Your task to perform on an android device: Go to notification settings Image 0: 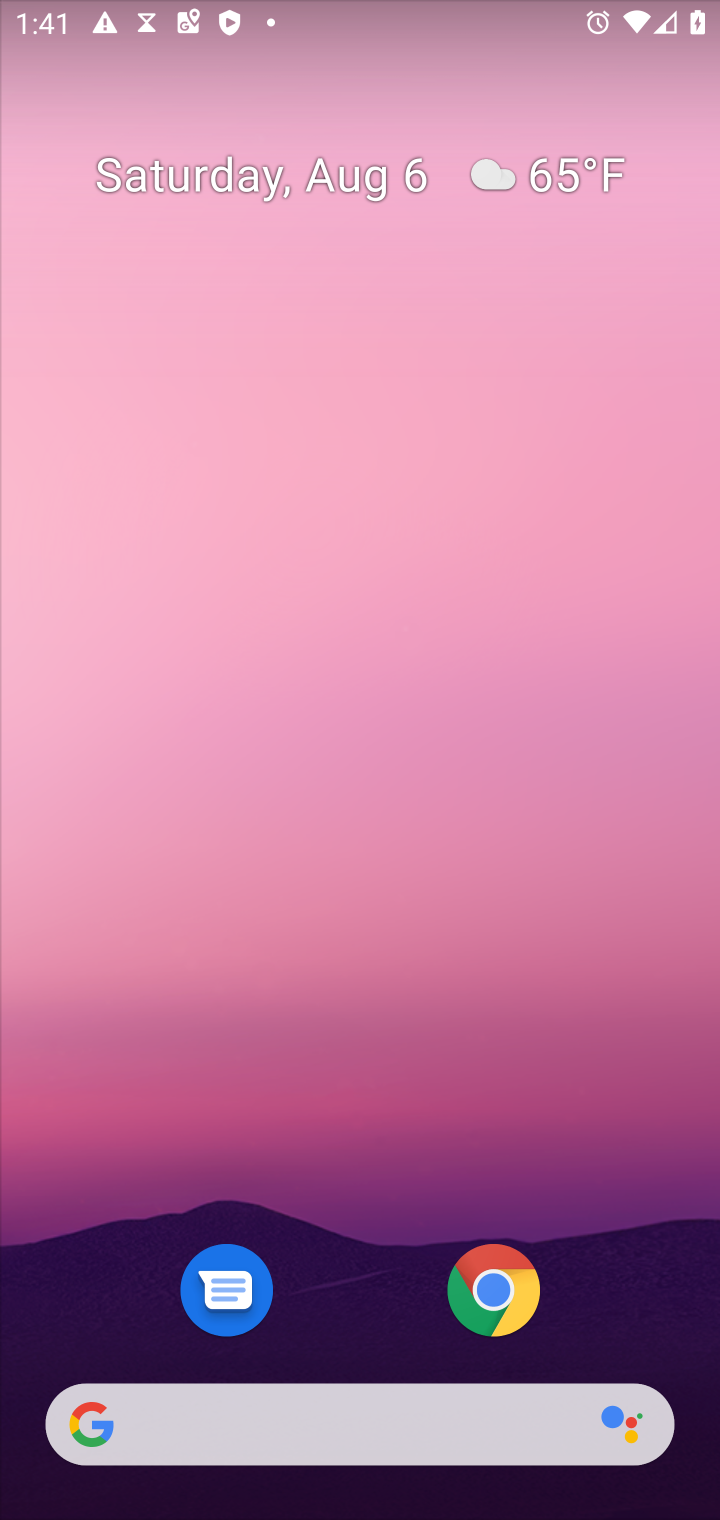
Step 0: press home button
Your task to perform on an android device: Go to notification settings Image 1: 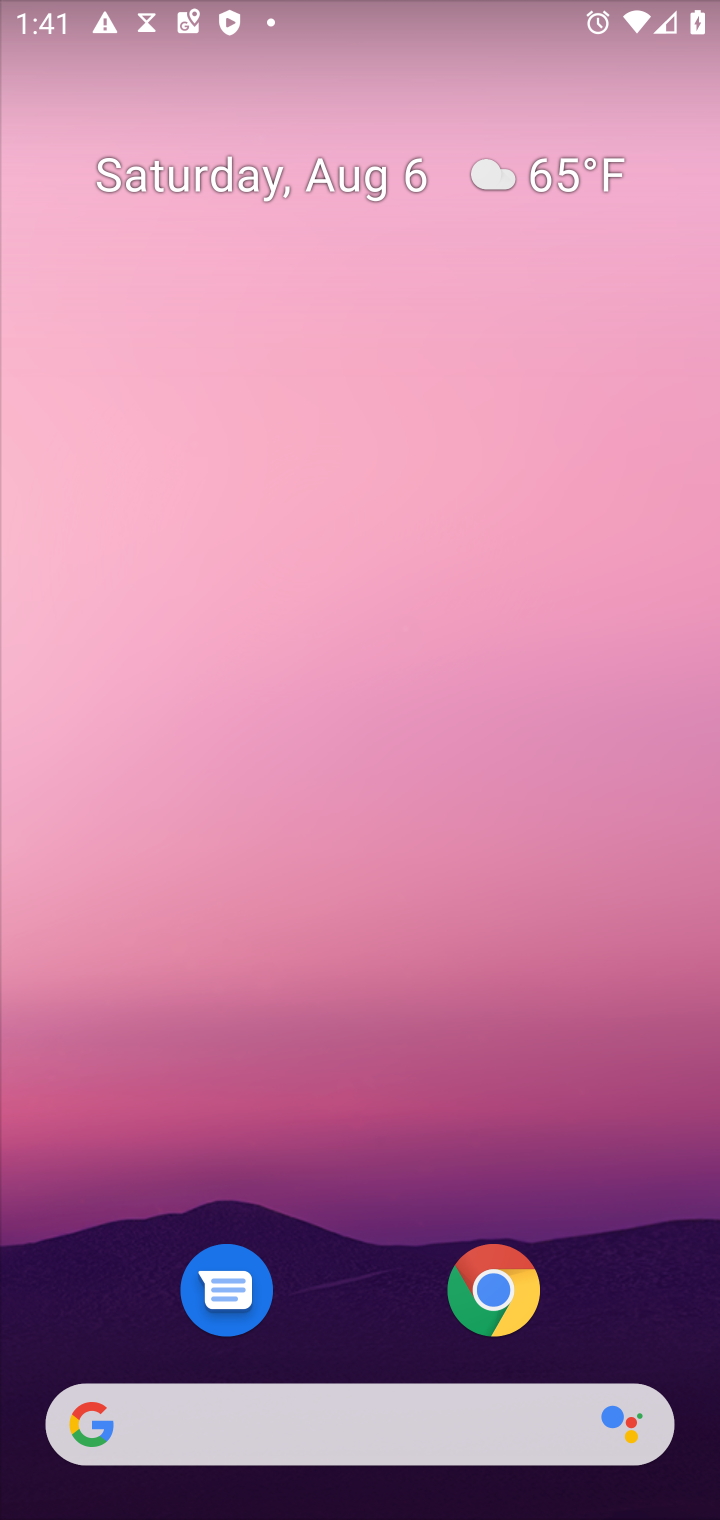
Step 1: drag from (435, 489) to (436, 410)
Your task to perform on an android device: Go to notification settings Image 2: 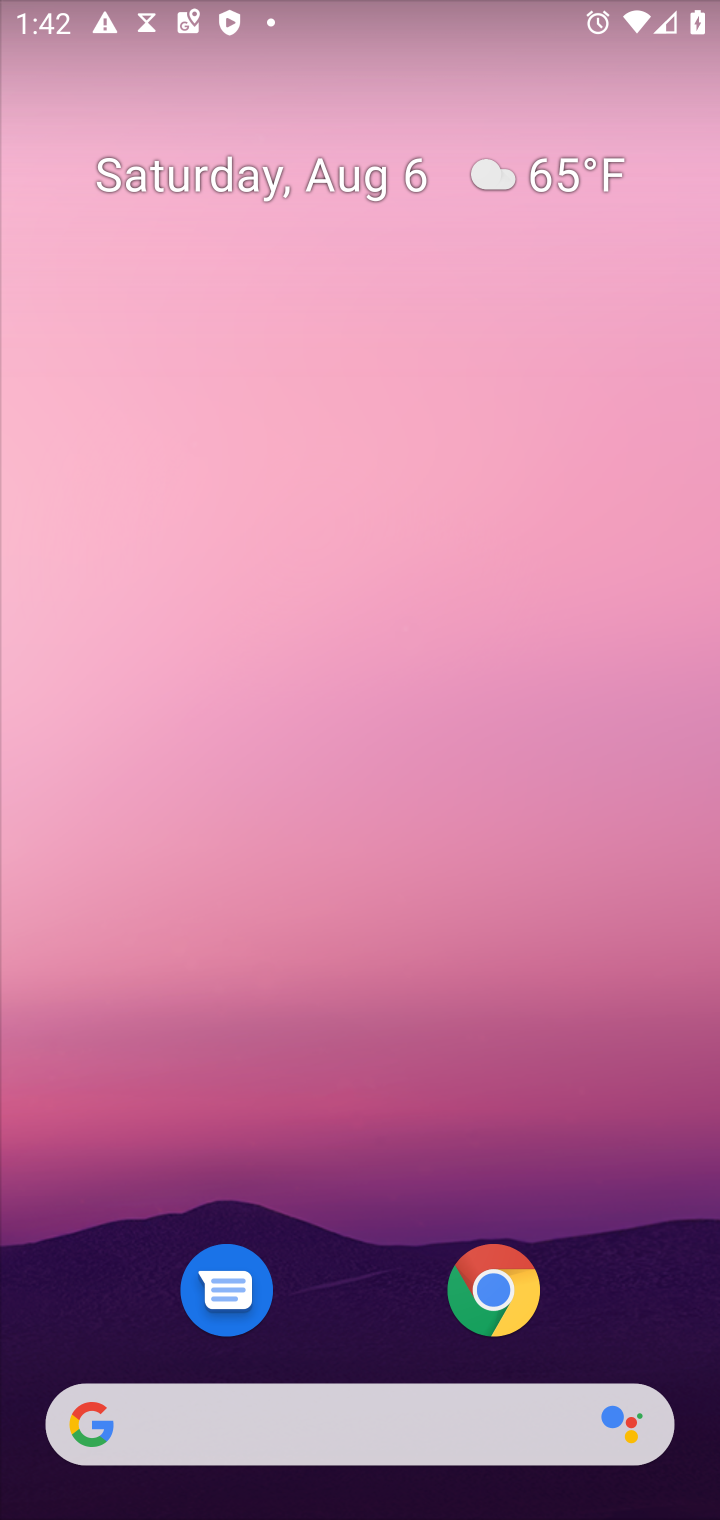
Step 2: drag from (351, 1294) to (319, 402)
Your task to perform on an android device: Go to notification settings Image 3: 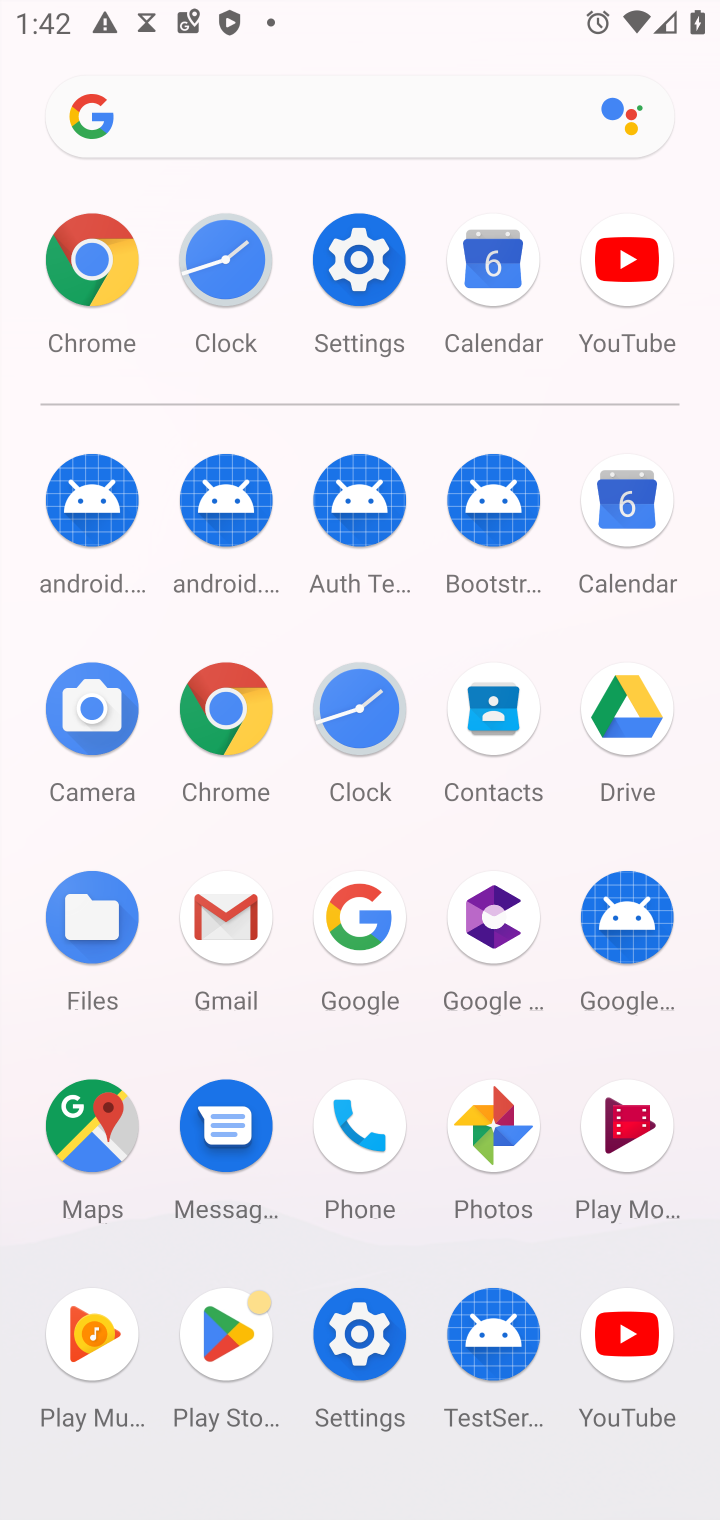
Step 3: click (361, 1334)
Your task to perform on an android device: Go to notification settings Image 4: 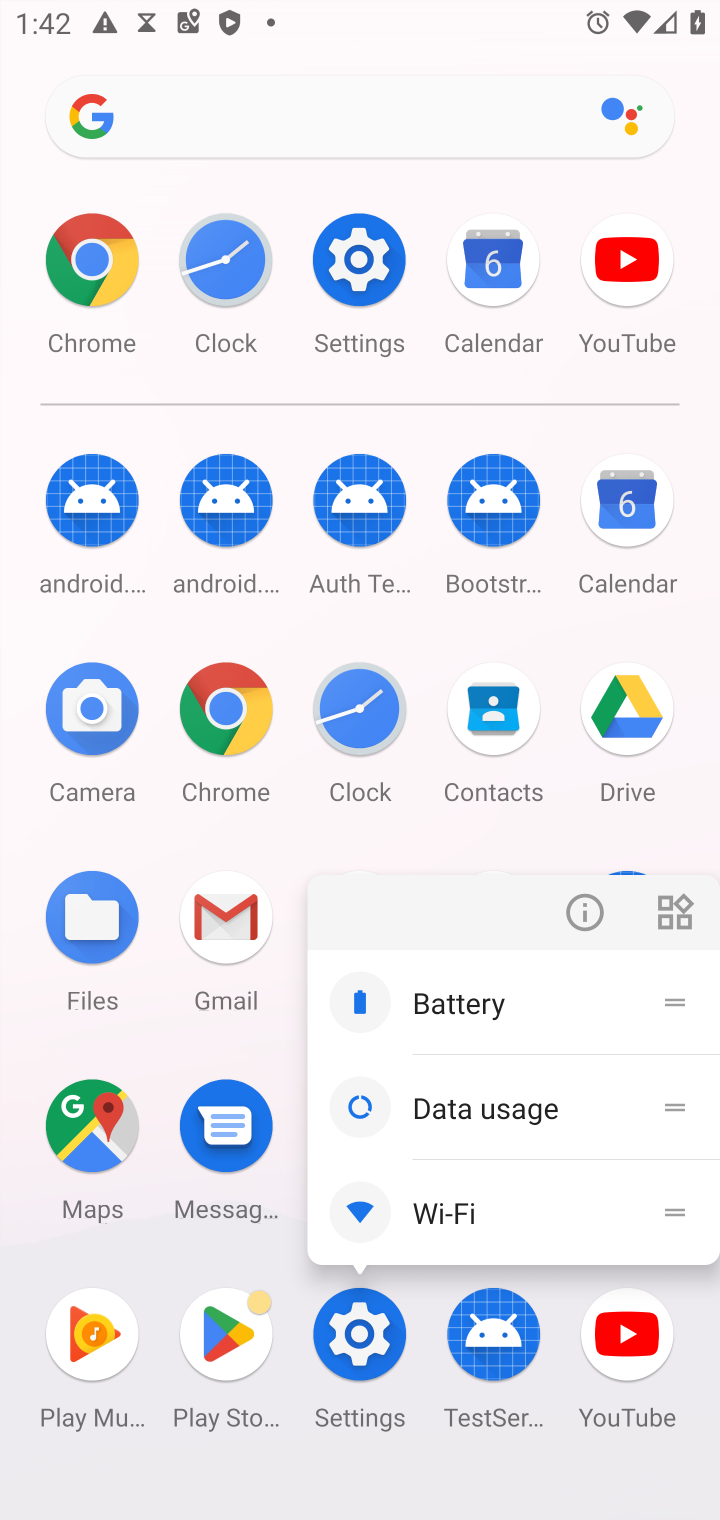
Step 4: click (351, 1323)
Your task to perform on an android device: Go to notification settings Image 5: 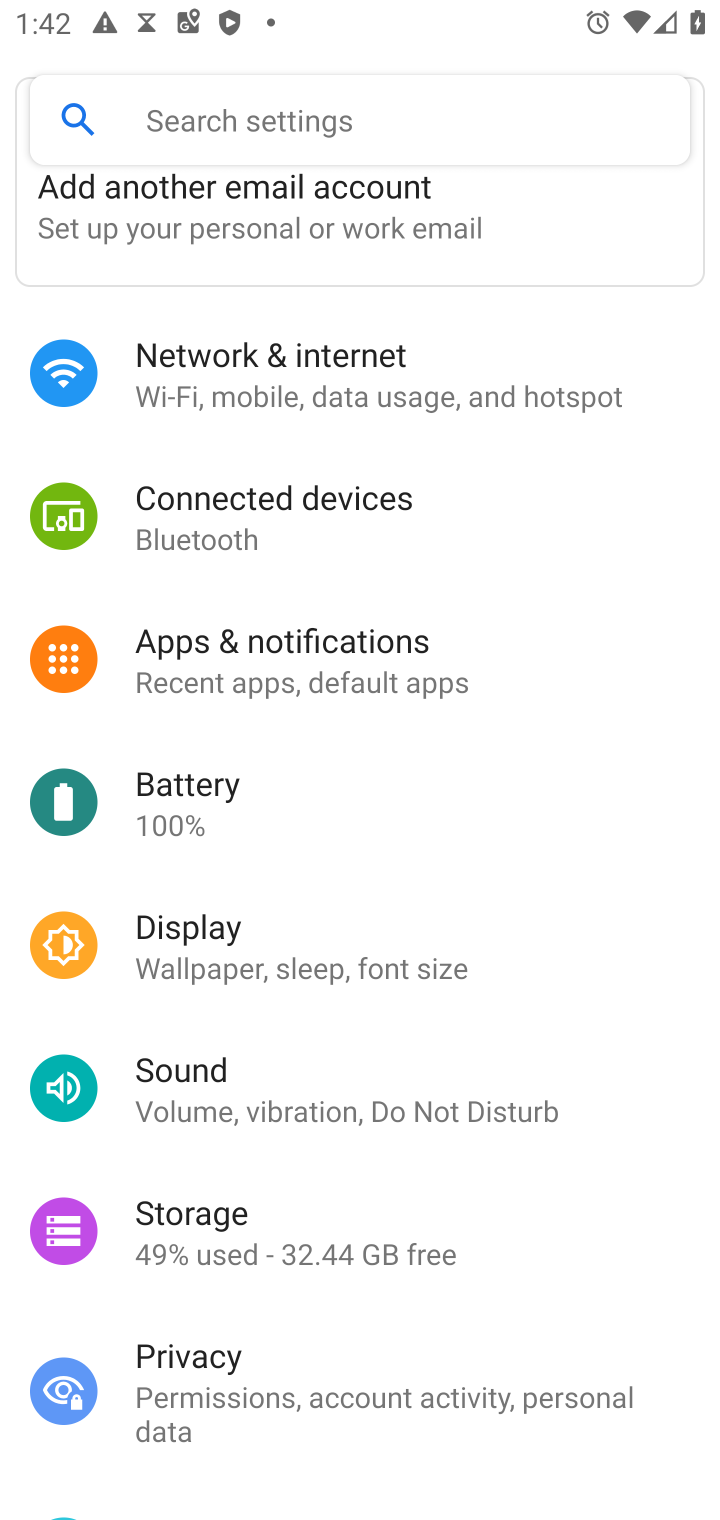
Step 5: click (306, 665)
Your task to perform on an android device: Go to notification settings Image 6: 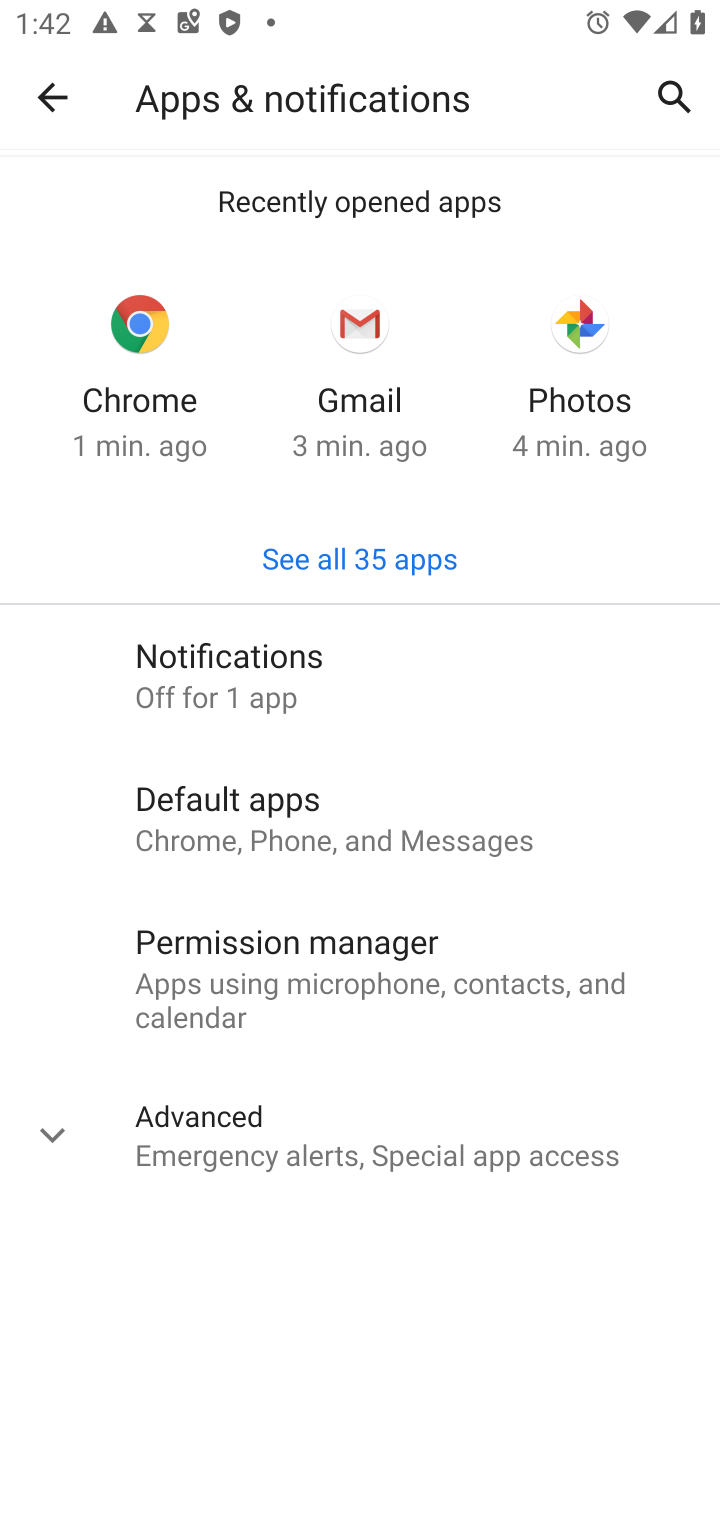
Step 6: click (329, 672)
Your task to perform on an android device: Go to notification settings Image 7: 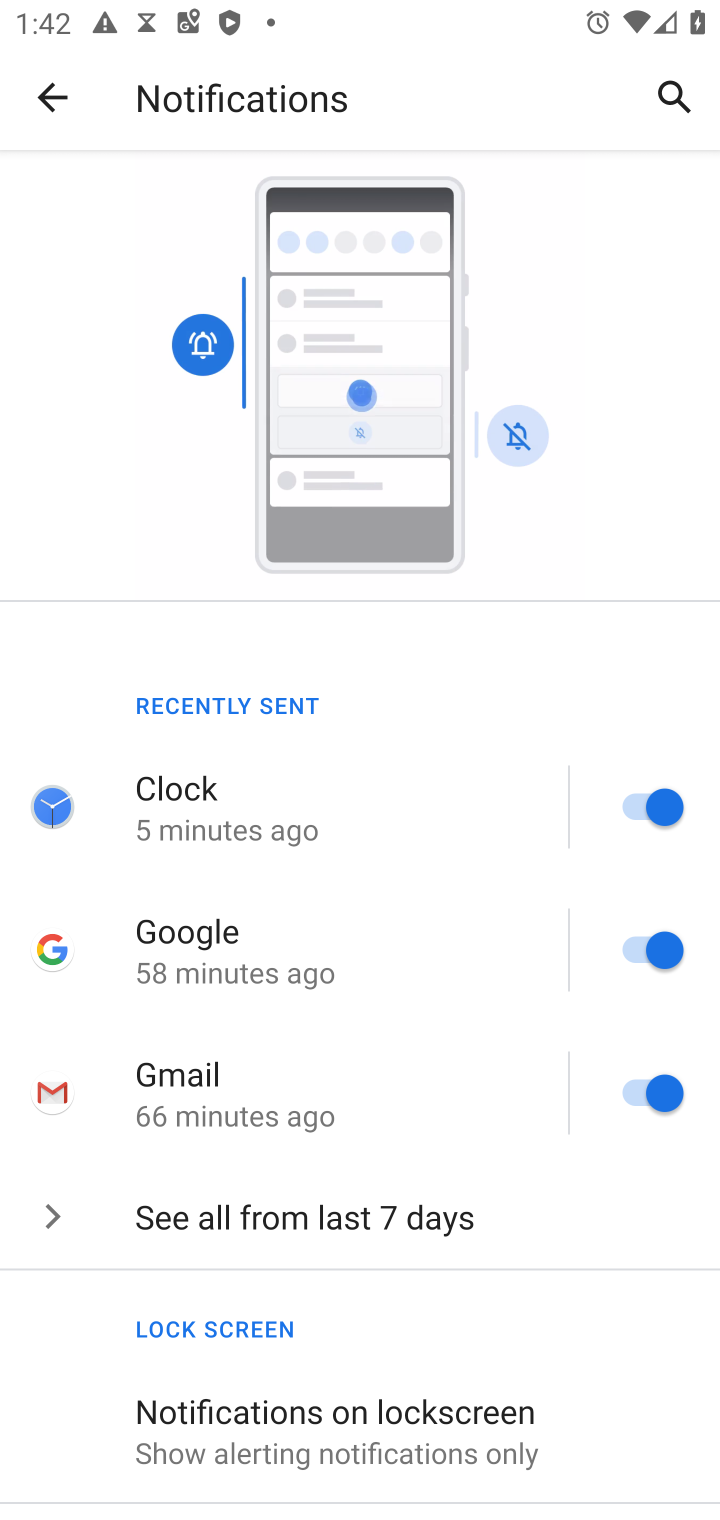
Step 7: drag from (364, 1295) to (422, 416)
Your task to perform on an android device: Go to notification settings Image 8: 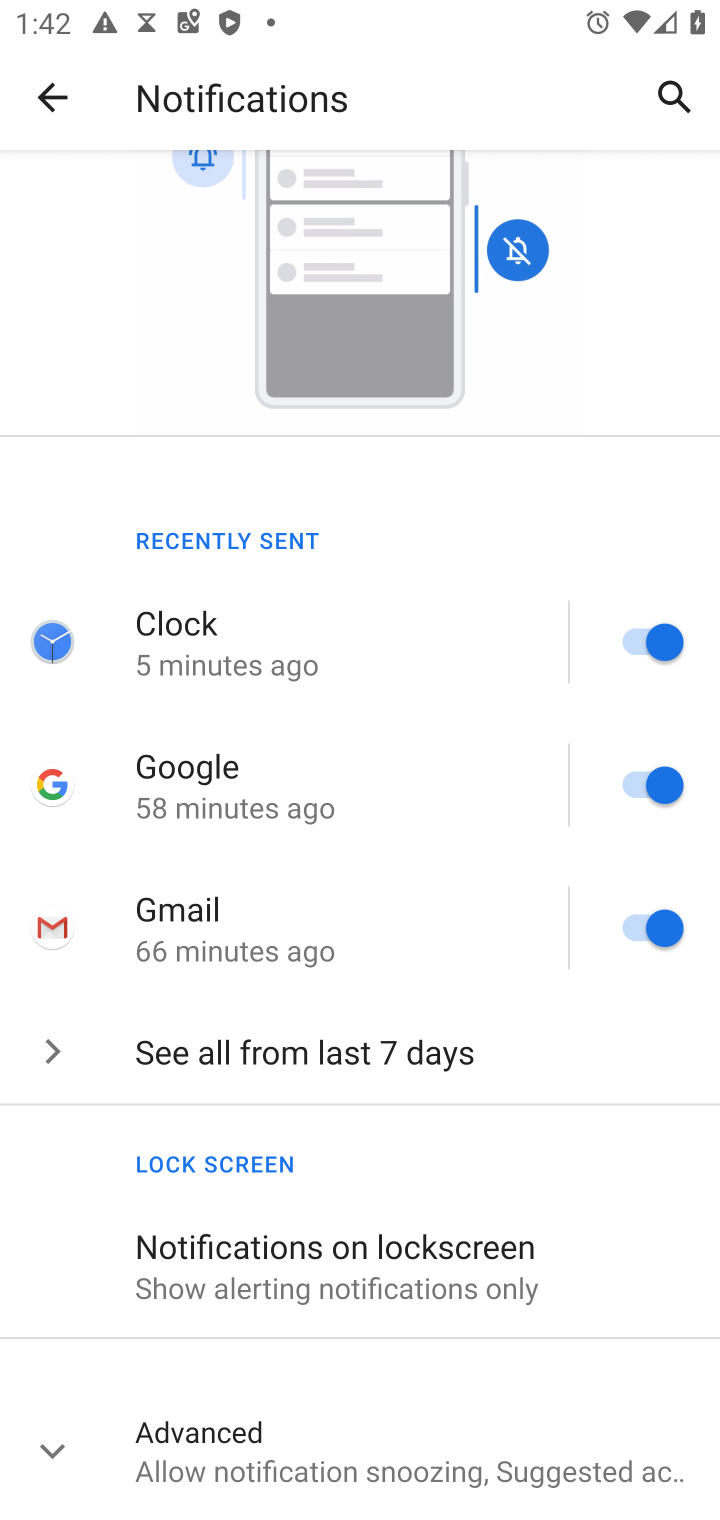
Step 8: click (50, 1439)
Your task to perform on an android device: Go to notification settings Image 9: 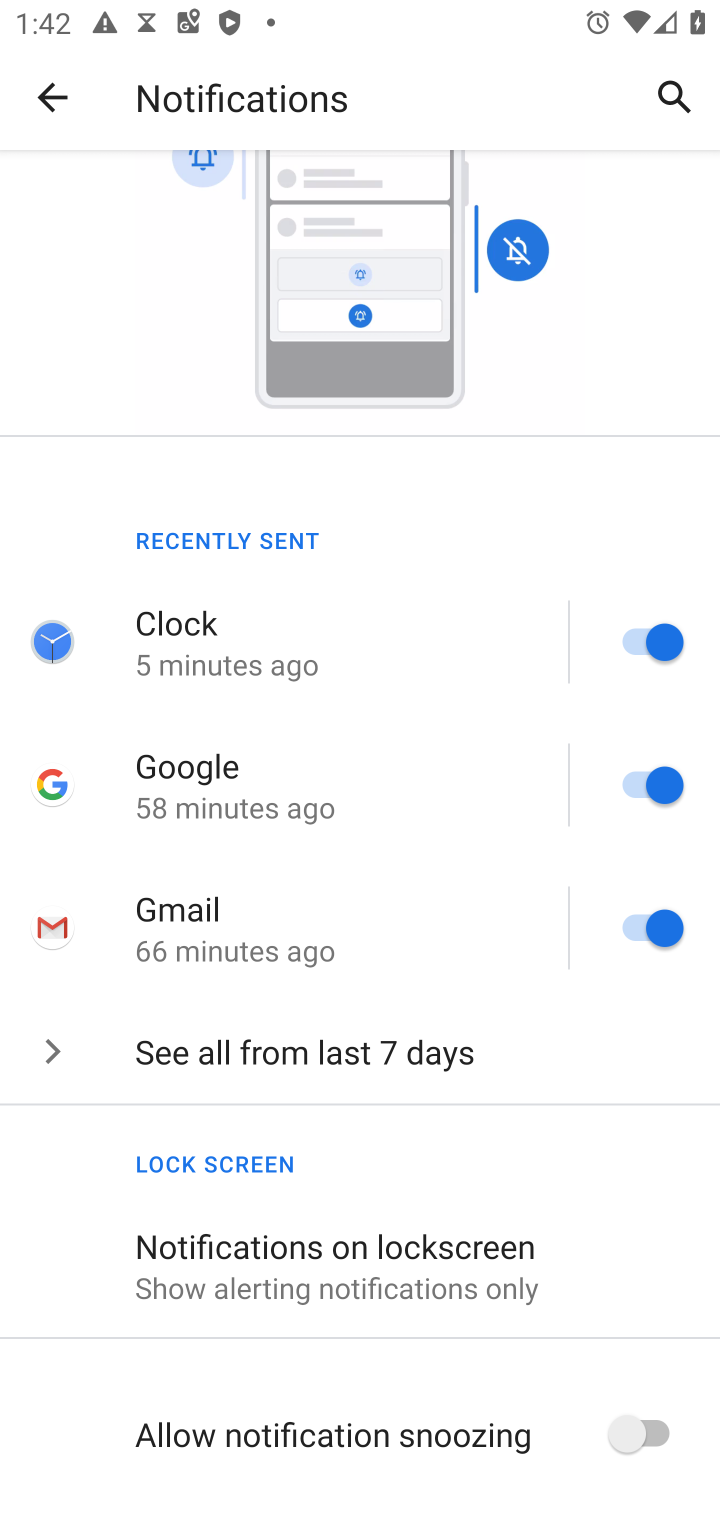
Step 9: task complete